Your task to perform on an android device: Is it going to rain this weekend? Image 0: 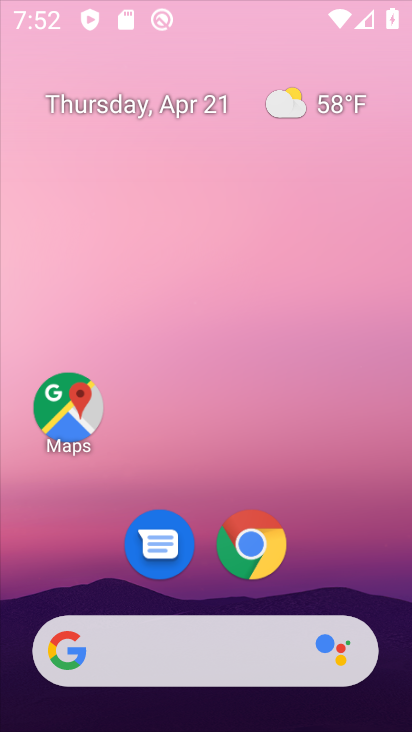
Step 0: click (236, 267)
Your task to perform on an android device: Is it going to rain this weekend? Image 1: 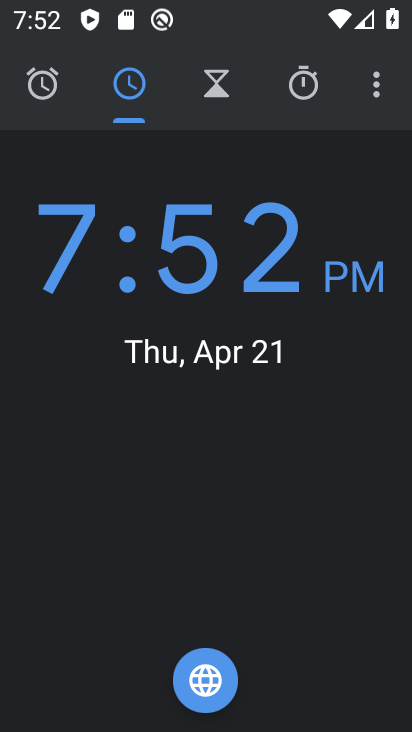
Step 1: press home button
Your task to perform on an android device: Is it going to rain this weekend? Image 2: 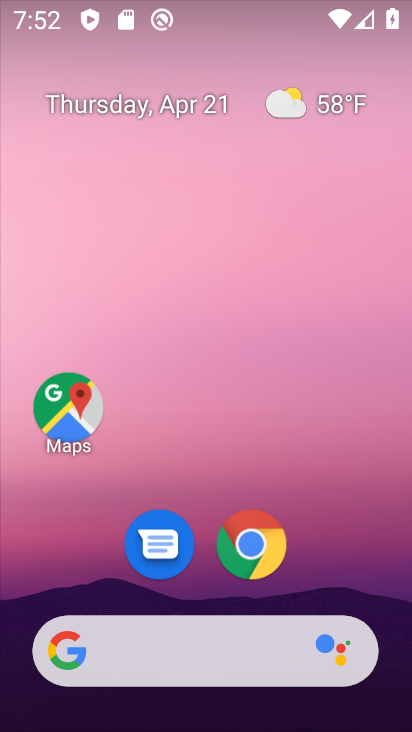
Step 2: drag from (259, 684) to (171, 193)
Your task to perform on an android device: Is it going to rain this weekend? Image 3: 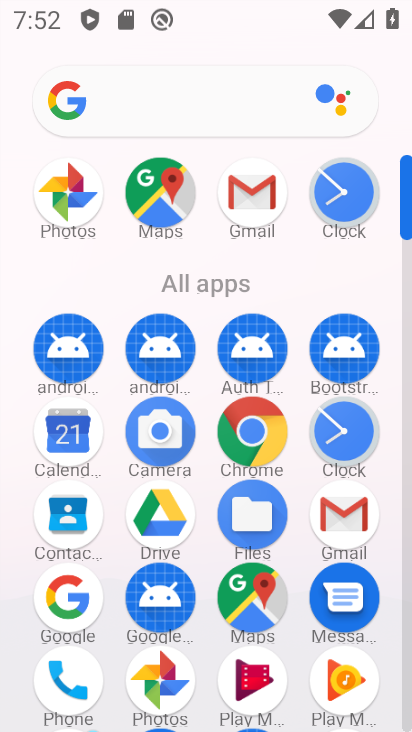
Step 3: press home button
Your task to perform on an android device: Is it going to rain this weekend? Image 4: 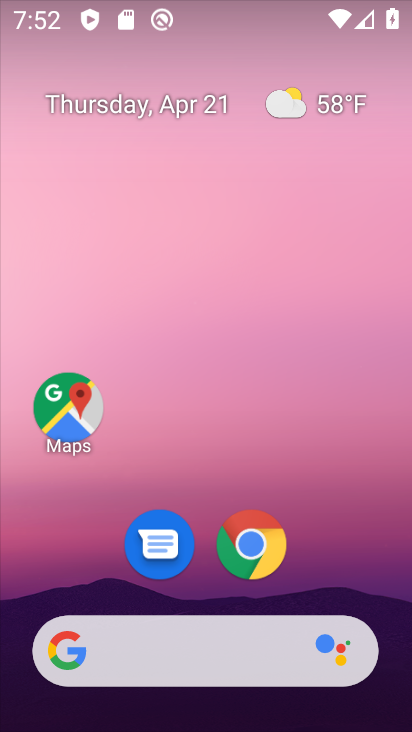
Step 4: drag from (6, 248) to (411, 378)
Your task to perform on an android device: Is it going to rain this weekend? Image 5: 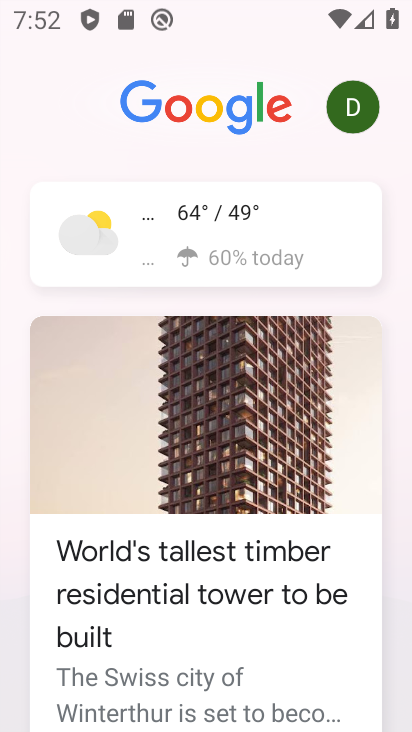
Step 5: click (196, 208)
Your task to perform on an android device: Is it going to rain this weekend? Image 6: 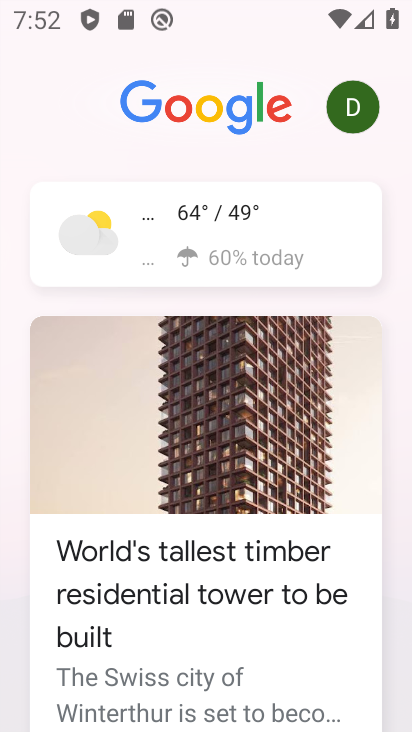
Step 6: click (196, 208)
Your task to perform on an android device: Is it going to rain this weekend? Image 7: 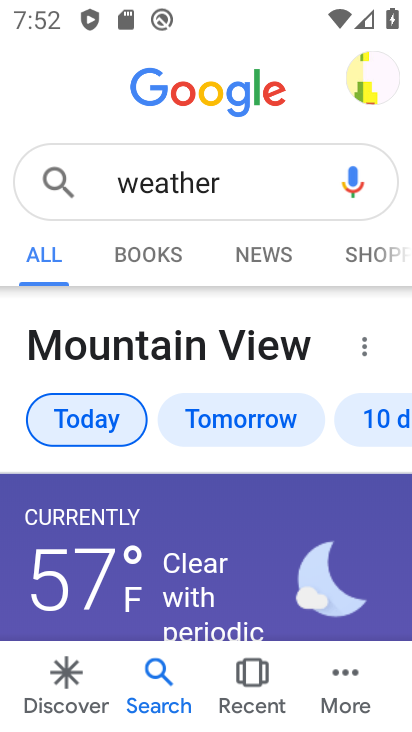
Step 7: click (351, 410)
Your task to perform on an android device: Is it going to rain this weekend? Image 8: 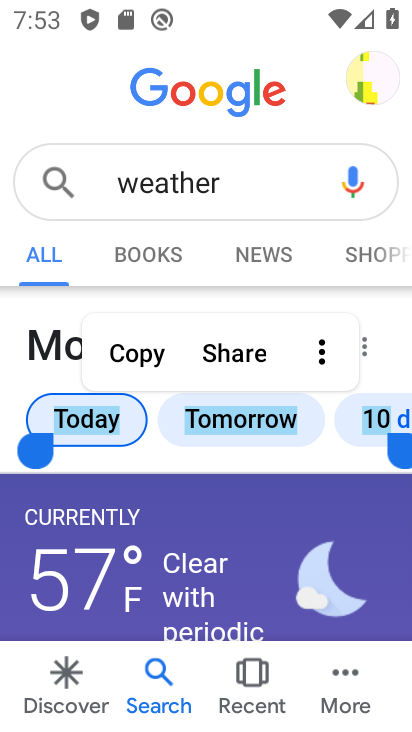
Step 8: drag from (318, 508) to (283, 445)
Your task to perform on an android device: Is it going to rain this weekend? Image 9: 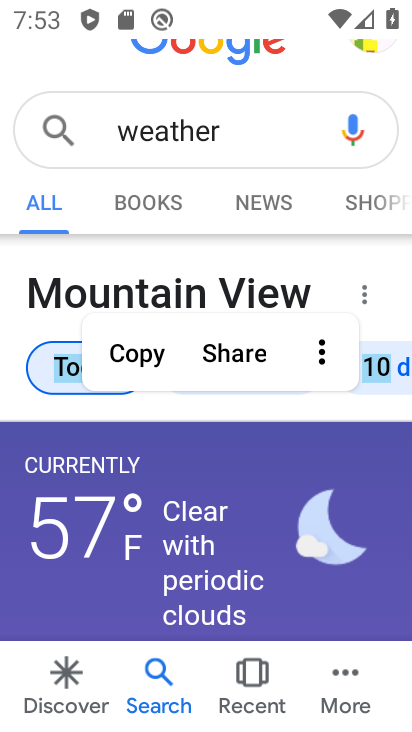
Step 9: drag from (276, 410) to (266, 287)
Your task to perform on an android device: Is it going to rain this weekend? Image 10: 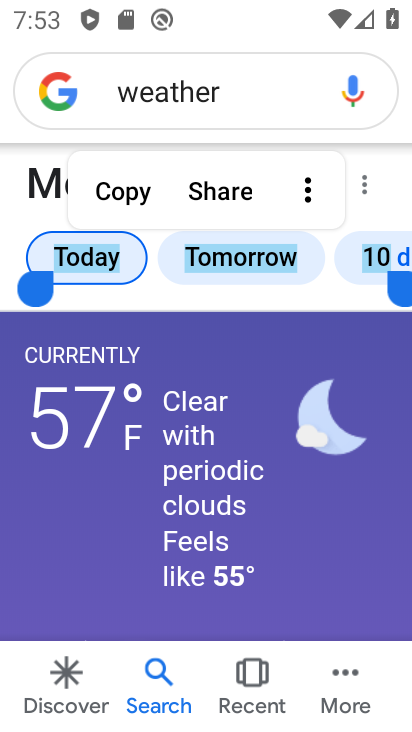
Step 10: click (395, 250)
Your task to perform on an android device: Is it going to rain this weekend? Image 11: 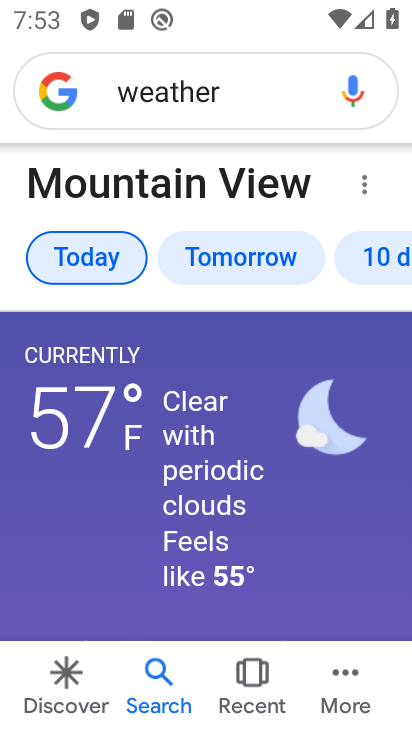
Step 11: click (385, 251)
Your task to perform on an android device: Is it going to rain this weekend? Image 12: 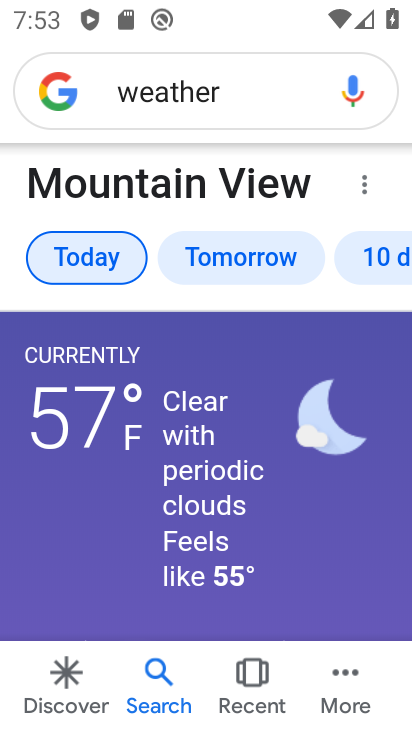
Step 12: click (386, 251)
Your task to perform on an android device: Is it going to rain this weekend? Image 13: 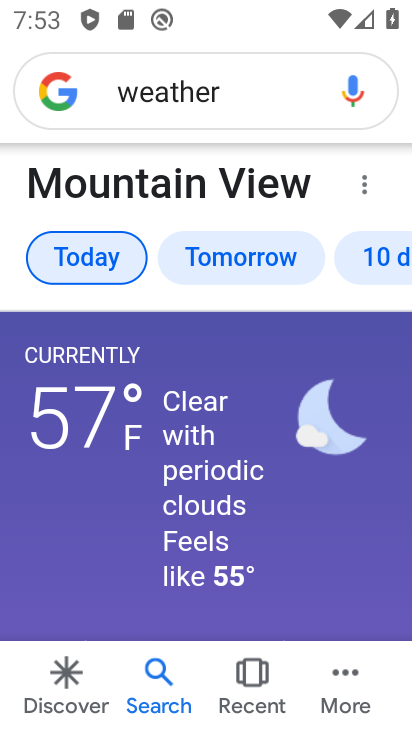
Step 13: click (386, 251)
Your task to perform on an android device: Is it going to rain this weekend? Image 14: 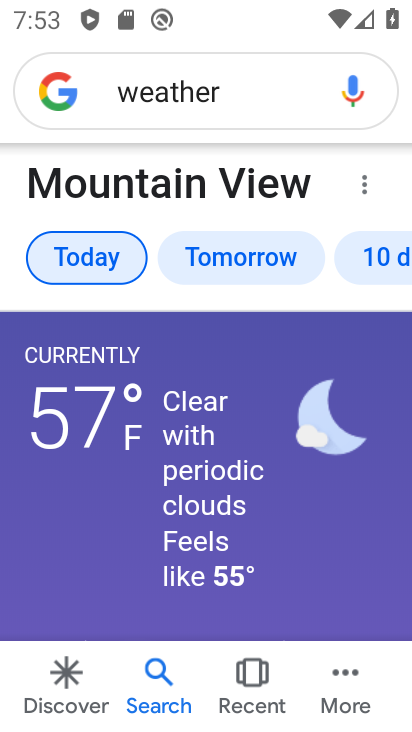
Step 14: click (388, 250)
Your task to perform on an android device: Is it going to rain this weekend? Image 15: 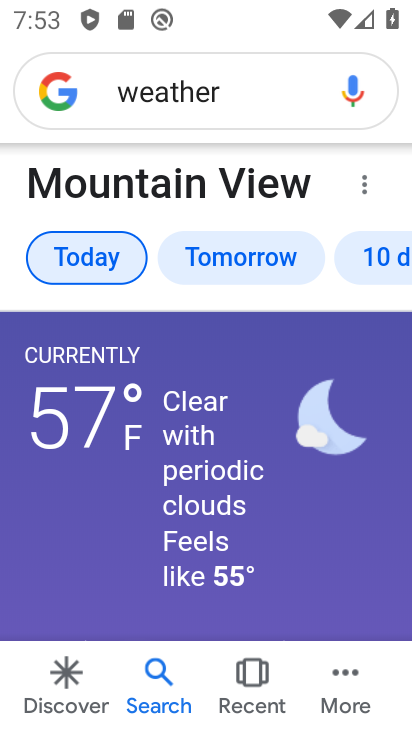
Step 15: click (403, 255)
Your task to perform on an android device: Is it going to rain this weekend? Image 16: 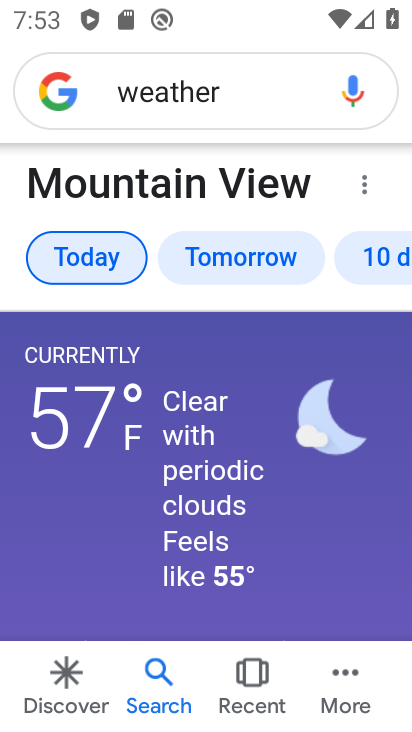
Step 16: click (405, 253)
Your task to perform on an android device: Is it going to rain this weekend? Image 17: 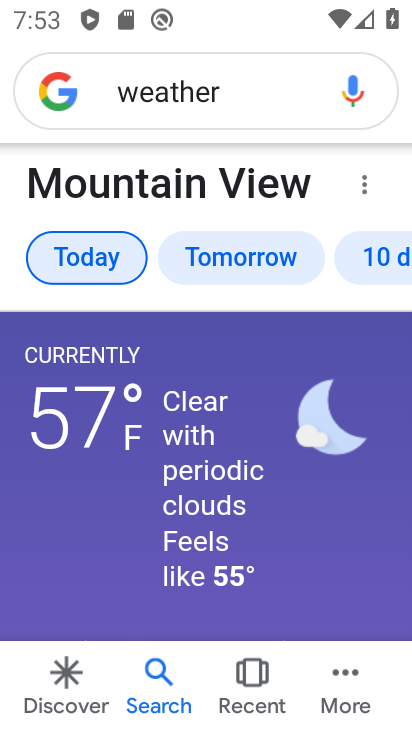
Step 17: task complete